Your task to perform on an android device: toggle translation in the chrome app Image 0: 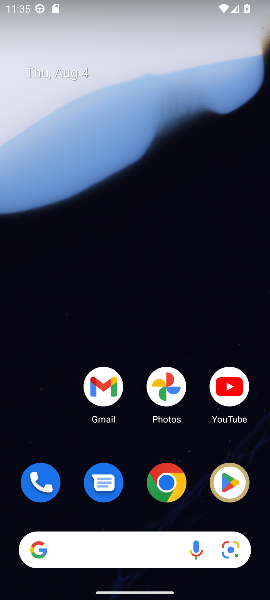
Step 0: click (234, 81)
Your task to perform on an android device: toggle translation in the chrome app Image 1: 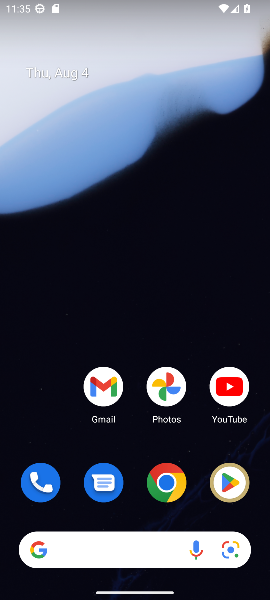
Step 1: click (182, 481)
Your task to perform on an android device: toggle translation in the chrome app Image 2: 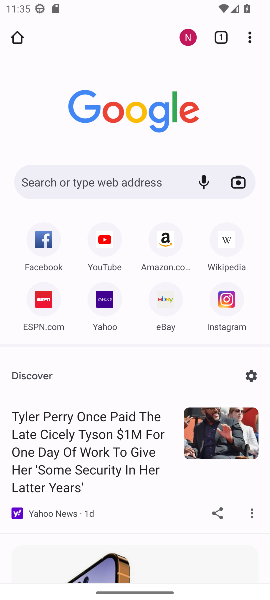
Step 2: click (245, 35)
Your task to perform on an android device: toggle translation in the chrome app Image 3: 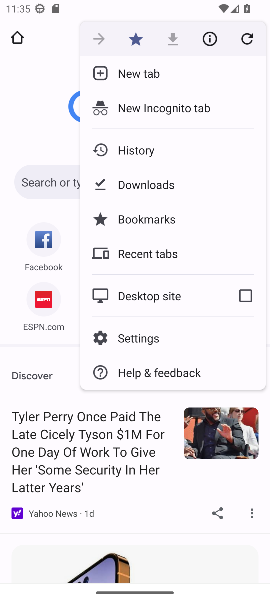
Step 3: click (143, 337)
Your task to perform on an android device: toggle translation in the chrome app Image 4: 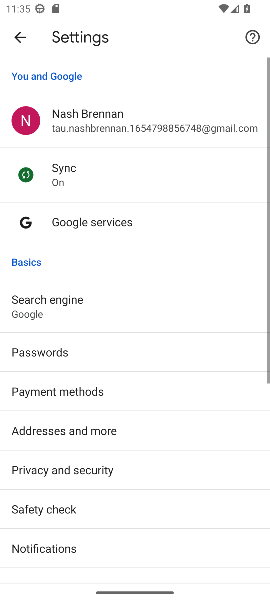
Step 4: drag from (102, 530) to (99, 195)
Your task to perform on an android device: toggle translation in the chrome app Image 5: 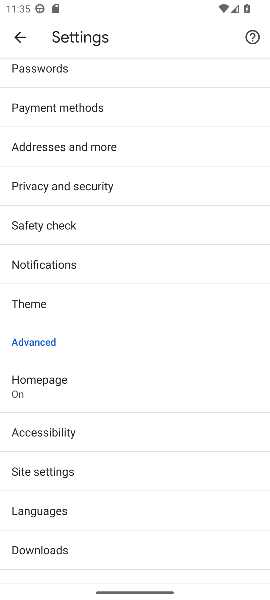
Step 5: click (65, 507)
Your task to perform on an android device: toggle translation in the chrome app Image 6: 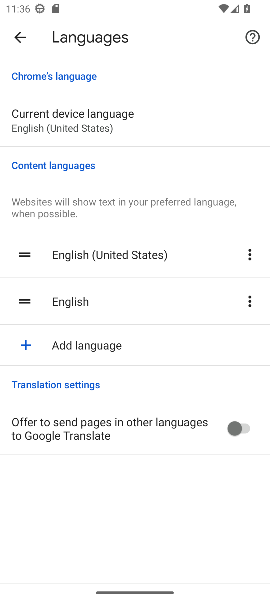
Step 6: click (238, 426)
Your task to perform on an android device: toggle translation in the chrome app Image 7: 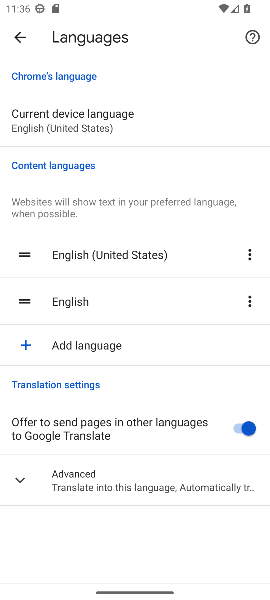
Step 7: task complete